Your task to perform on an android device: Go to Google Image 0: 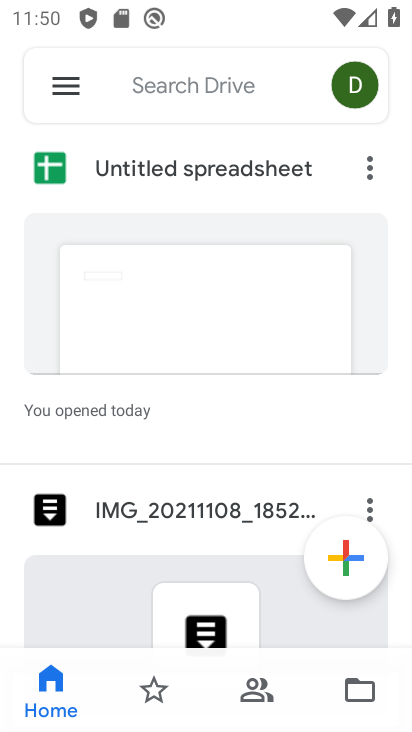
Step 0: press back button
Your task to perform on an android device: Go to Google Image 1: 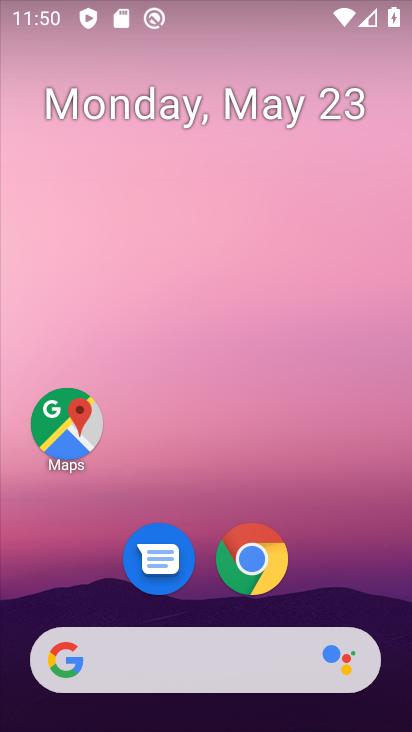
Step 1: drag from (248, 674) to (279, 26)
Your task to perform on an android device: Go to Google Image 2: 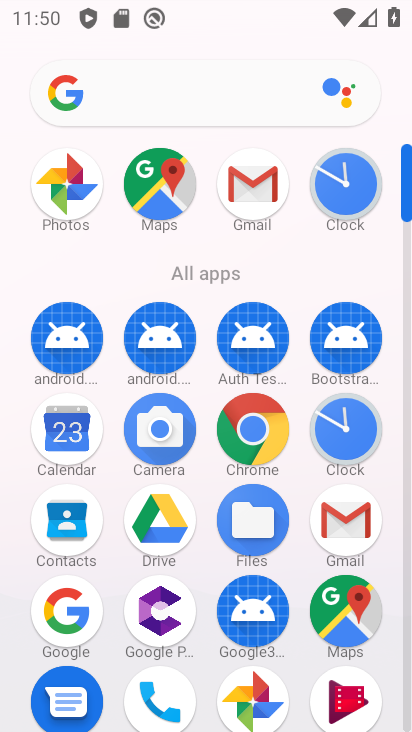
Step 2: click (66, 613)
Your task to perform on an android device: Go to Google Image 3: 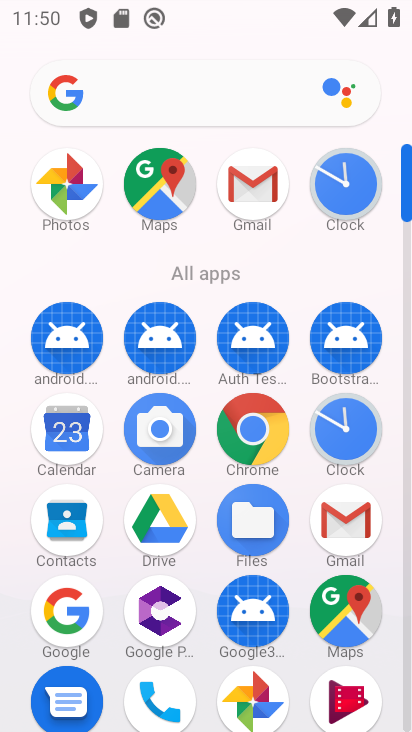
Step 3: click (66, 613)
Your task to perform on an android device: Go to Google Image 4: 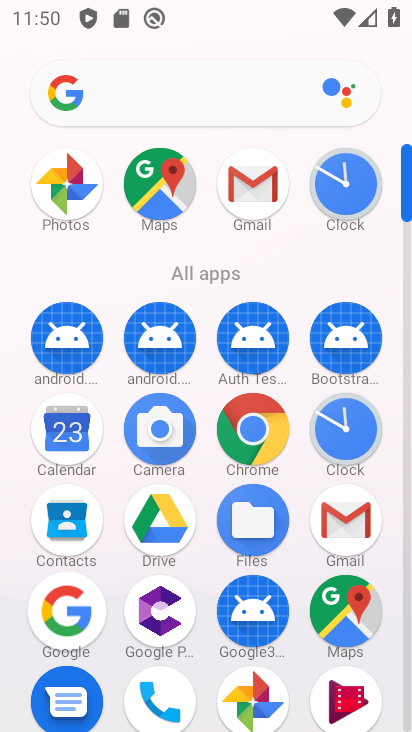
Step 4: click (66, 613)
Your task to perform on an android device: Go to Google Image 5: 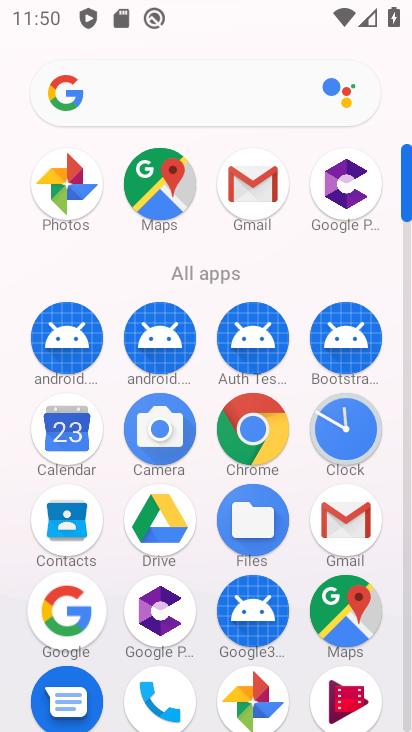
Step 5: click (70, 617)
Your task to perform on an android device: Go to Google Image 6: 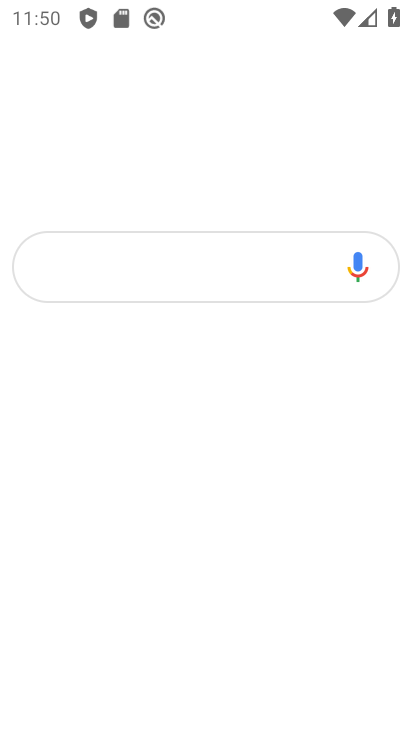
Step 6: click (78, 616)
Your task to perform on an android device: Go to Google Image 7: 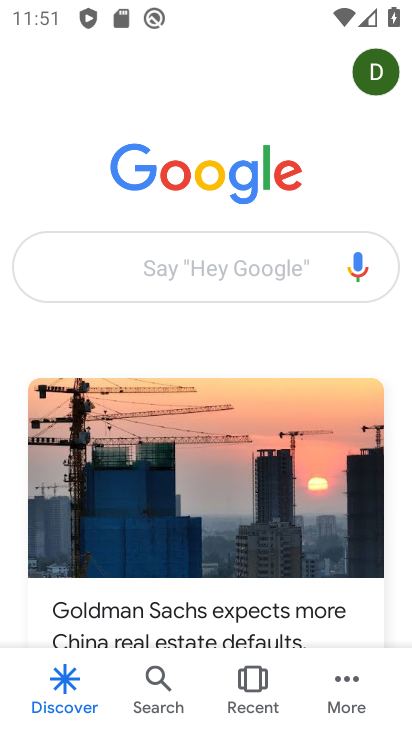
Step 7: task complete